Your task to perform on an android device: set the timer Image 0: 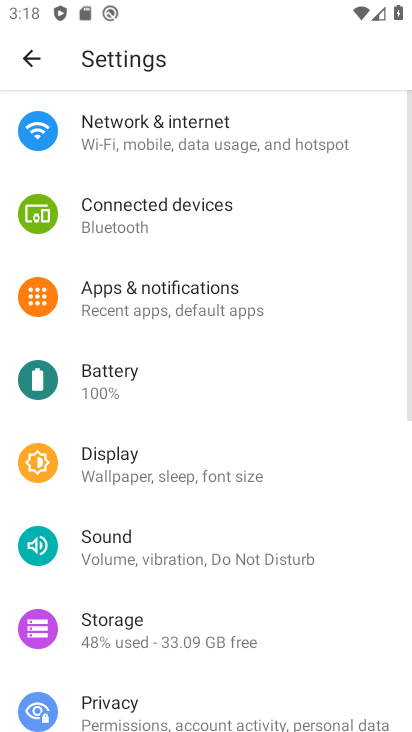
Step 0: press home button
Your task to perform on an android device: set the timer Image 1: 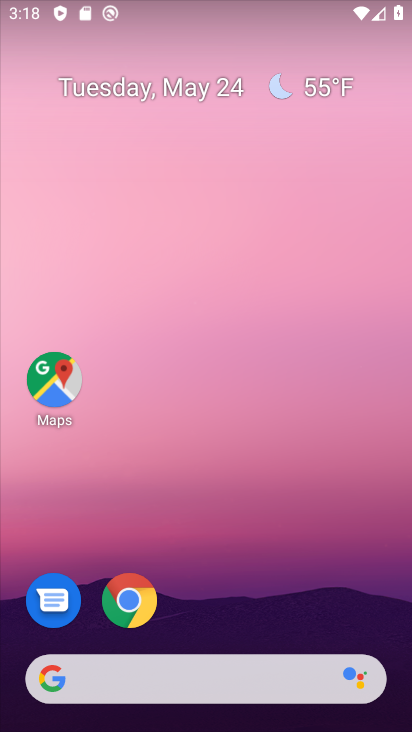
Step 1: drag from (252, 683) to (298, 45)
Your task to perform on an android device: set the timer Image 2: 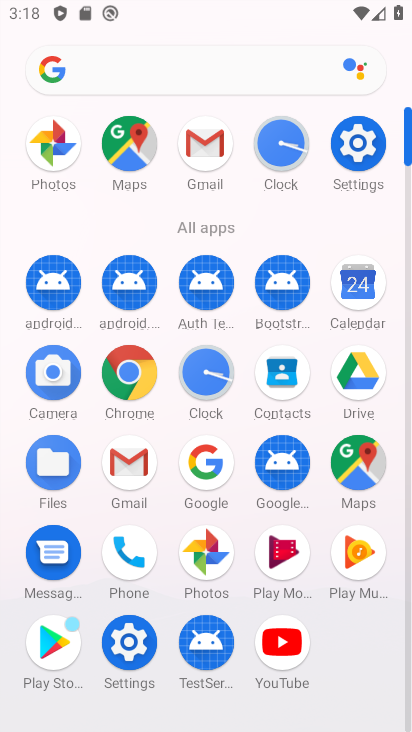
Step 2: click (207, 385)
Your task to perform on an android device: set the timer Image 3: 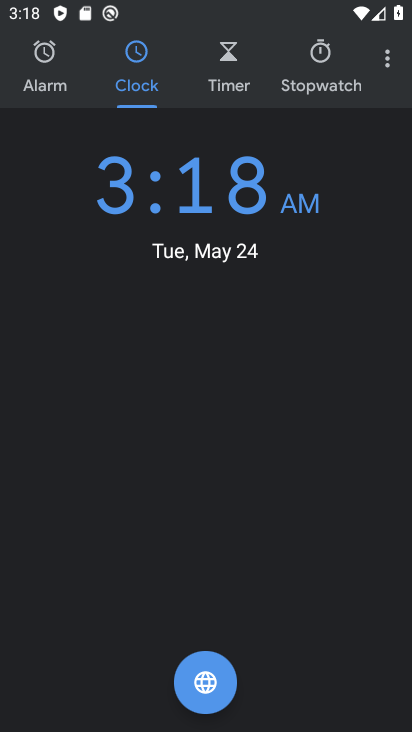
Step 3: click (237, 52)
Your task to perform on an android device: set the timer Image 4: 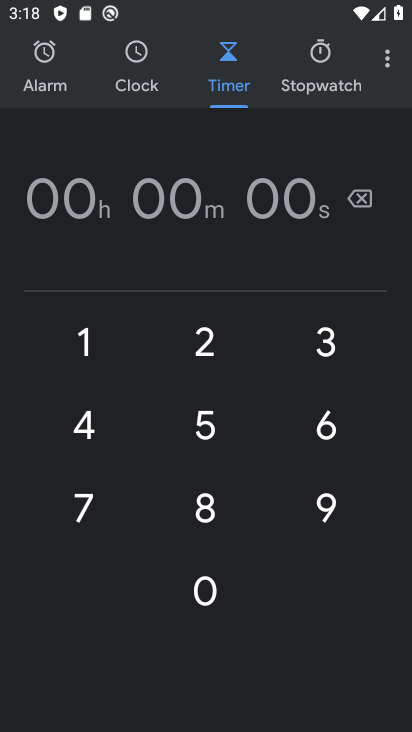
Step 4: click (99, 430)
Your task to perform on an android device: set the timer Image 5: 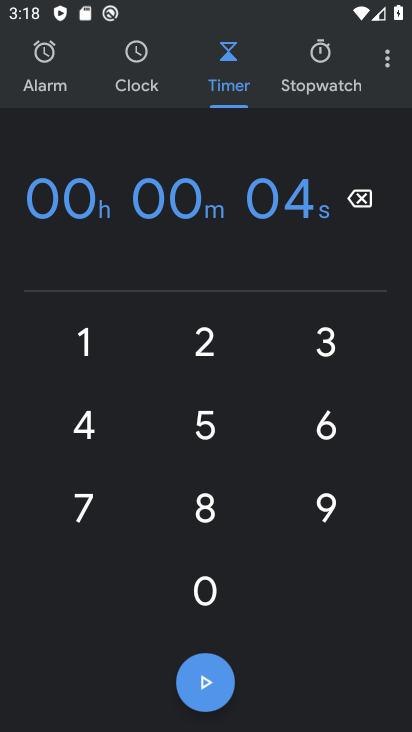
Step 5: click (209, 424)
Your task to perform on an android device: set the timer Image 6: 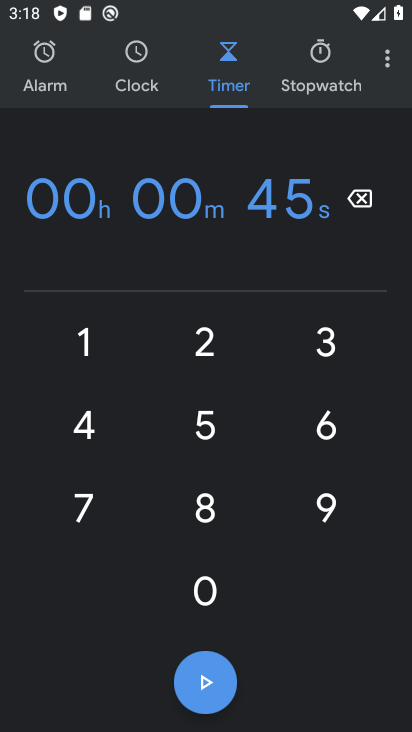
Step 6: click (210, 506)
Your task to perform on an android device: set the timer Image 7: 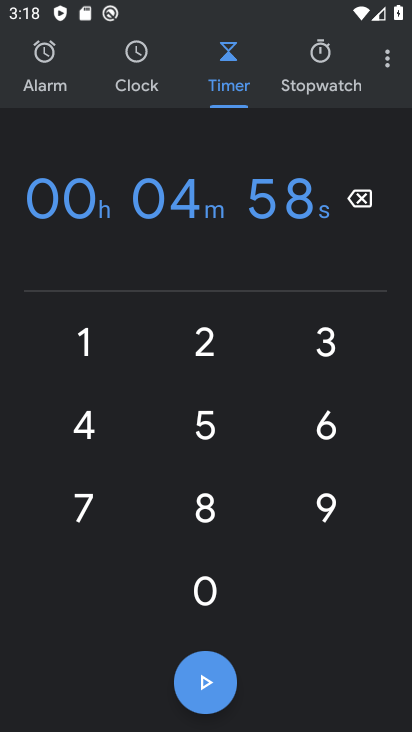
Step 7: click (190, 705)
Your task to perform on an android device: set the timer Image 8: 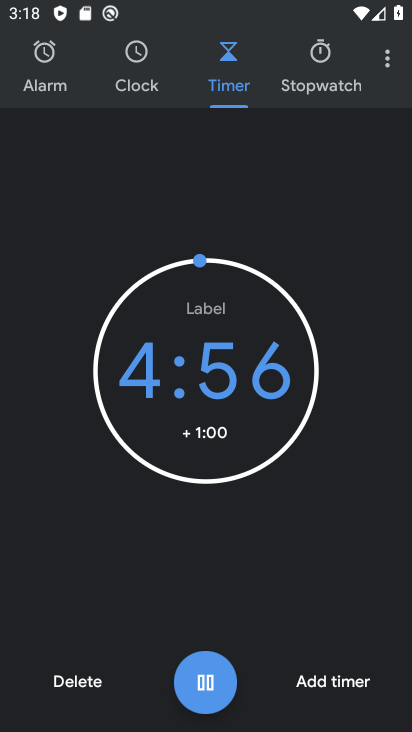
Step 8: task complete